Your task to perform on an android device: Empty the shopping cart on costco. Image 0: 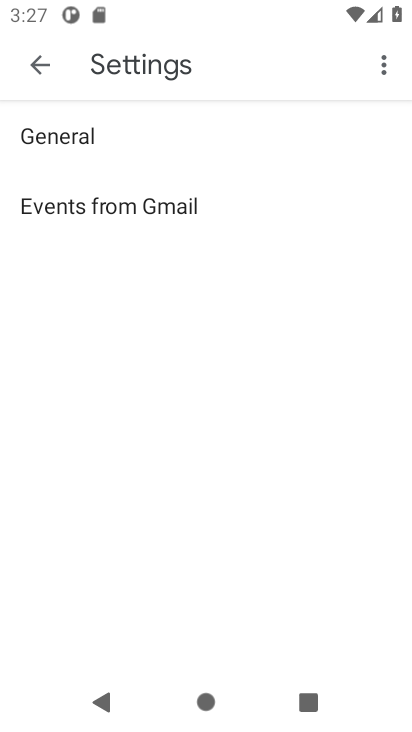
Step 0: click (250, 527)
Your task to perform on an android device: Empty the shopping cart on costco. Image 1: 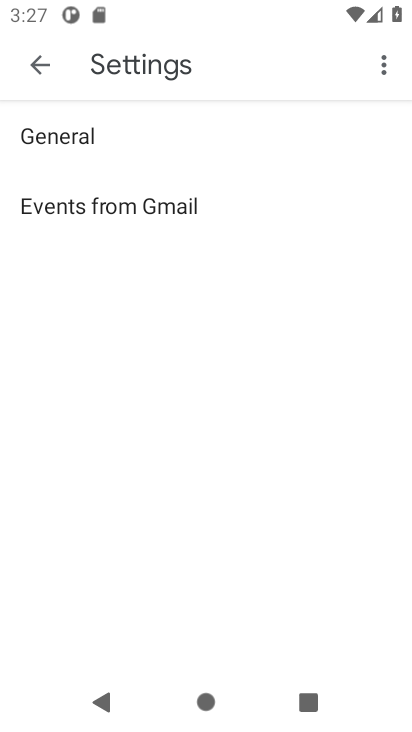
Step 1: press home button
Your task to perform on an android device: Empty the shopping cart on costco. Image 2: 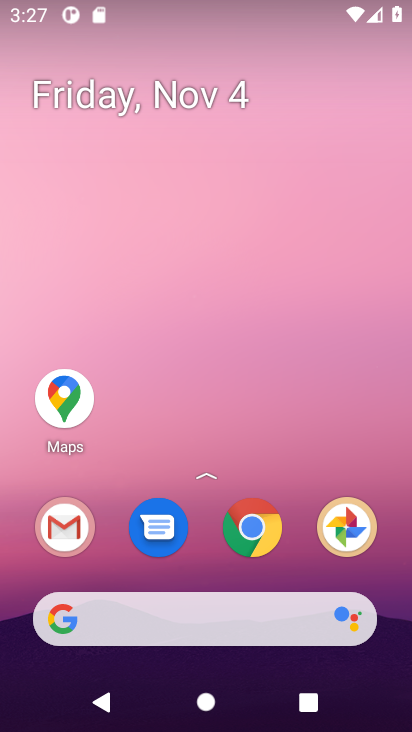
Step 2: click (261, 534)
Your task to perform on an android device: Empty the shopping cart on costco. Image 3: 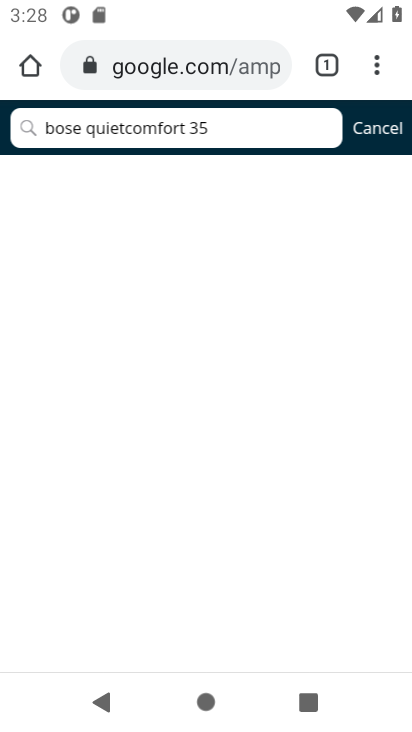
Step 3: click (155, 64)
Your task to perform on an android device: Empty the shopping cart on costco. Image 4: 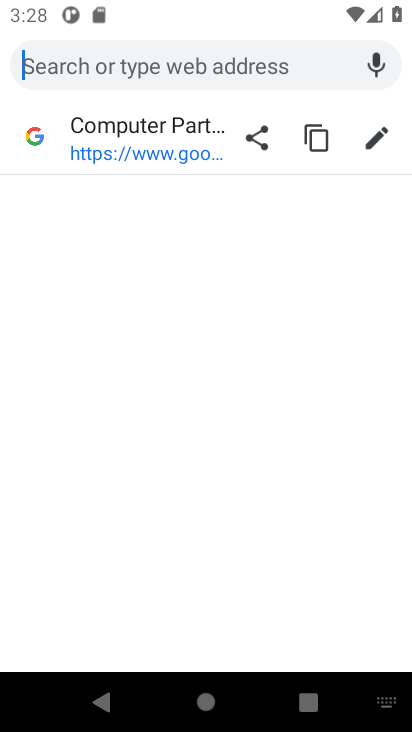
Step 4: type "costco"
Your task to perform on an android device: Empty the shopping cart on costco. Image 5: 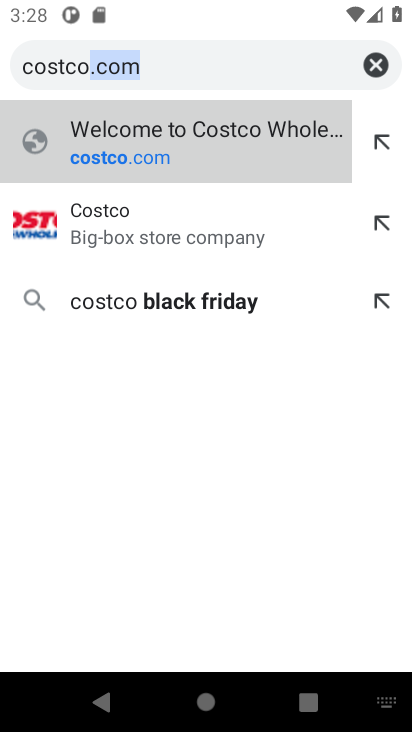
Step 5: click (207, 54)
Your task to perform on an android device: Empty the shopping cart on costco. Image 6: 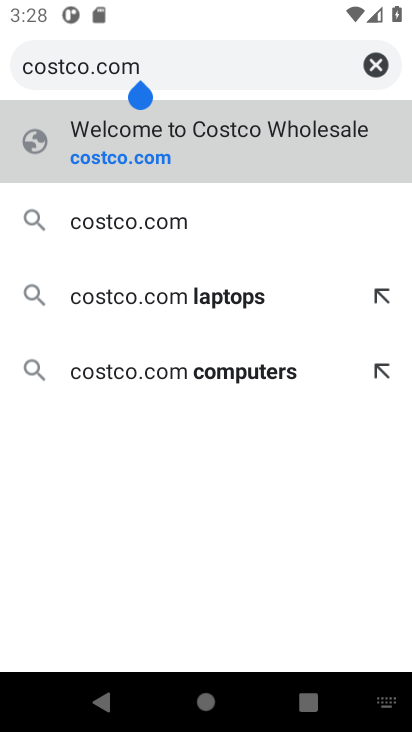
Step 6: click (153, 225)
Your task to perform on an android device: Empty the shopping cart on costco. Image 7: 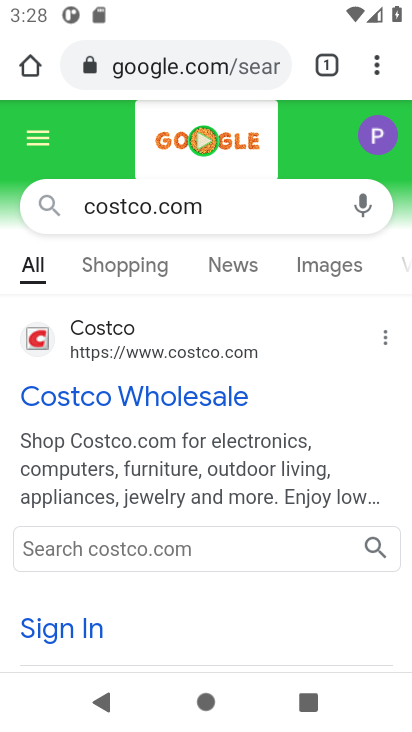
Step 7: click (181, 343)
Your task to perform on an android device: Empty the shopping cart on costco. Image 8: 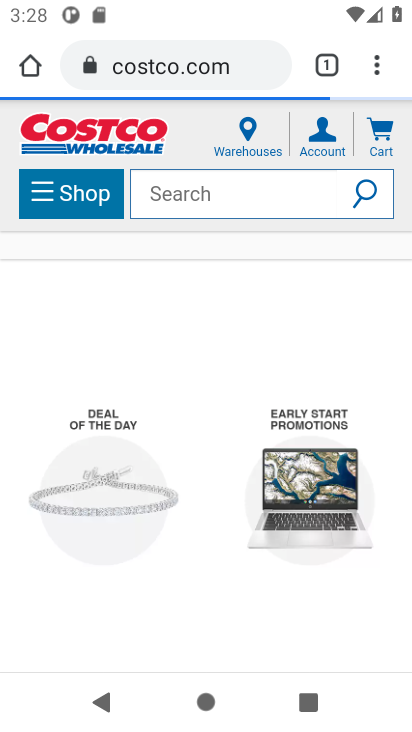
Step 8: click (376, 134)
Your task to perform on an android device: Empty the shopping cart on costco. Image 9: 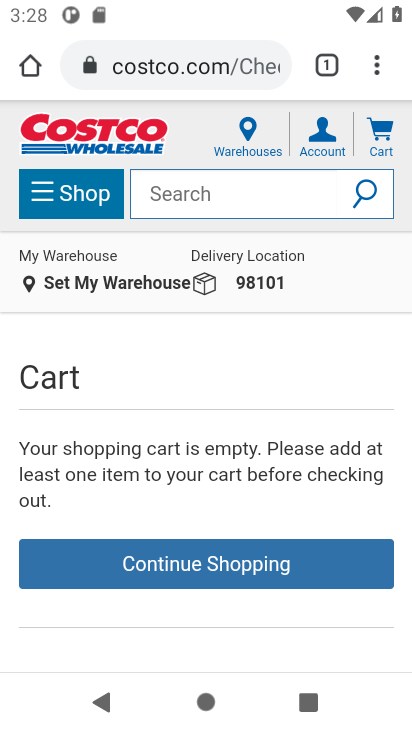
Step 9: task complete